Your task to perform on an android device: toggle sleep mode Image 0: 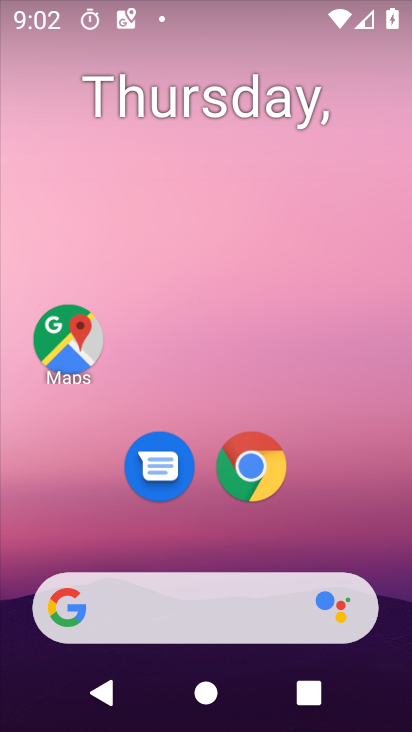
Step 0: drag from (373, 555) to (295, 146)
Your task to perform on an android device: toggle sleep mode Image 1: 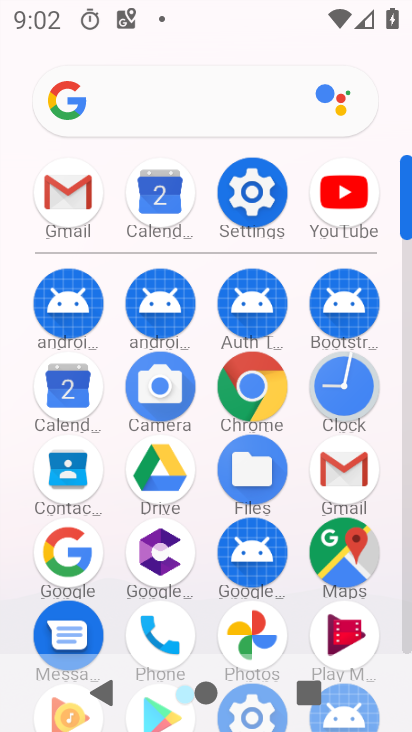
Step 1: click (243, 203)
Your task to perform on an android device: toggle sleep mode Image 2: 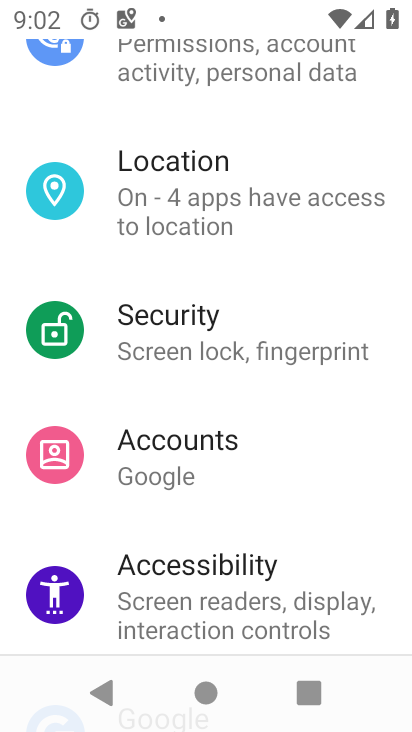
Step 2: drag from (322, 604) to (281, 716)
Your task to perform on an android device: toggle sleep mode Image 3: 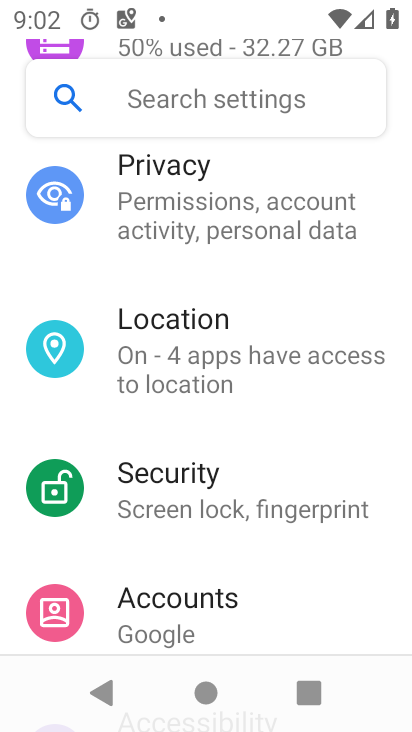
Step 3: drag from (297, 285) to (238, 723)
Your task to perform on an android device: toggle sleep mode Image 4: 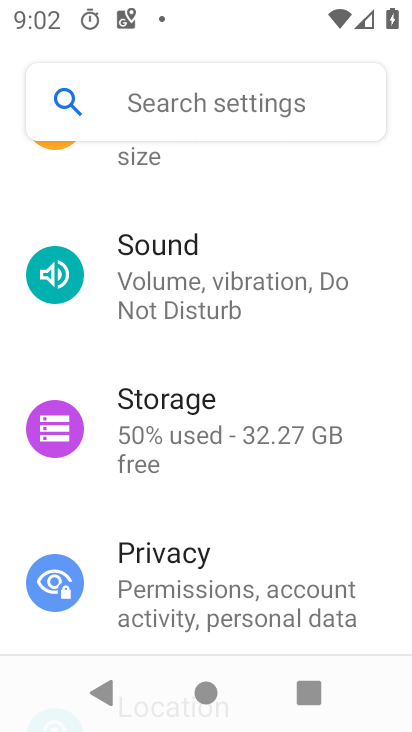
Step 4: click (173, 151)
Your task to perform on an android device: toggle sleep mode Image 5: 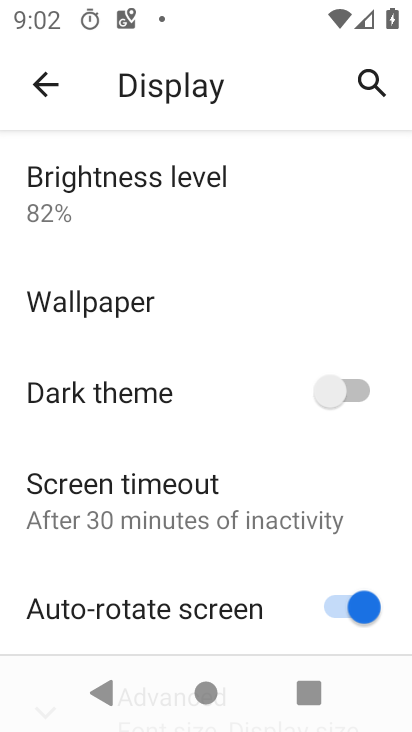
Step 5: drag from (179, 588) to (141, 145)
Your task to perform on an android device: toggle sleep mode Image 6: 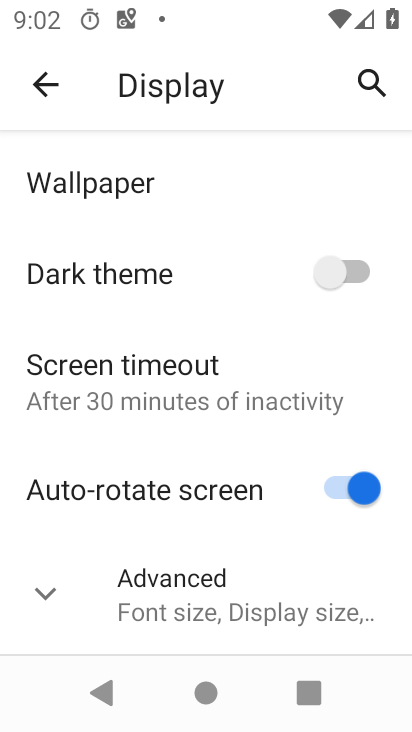
Step 6: click (47, 590)
Your task to perform on an android device: toggle sleep mode Image 7: 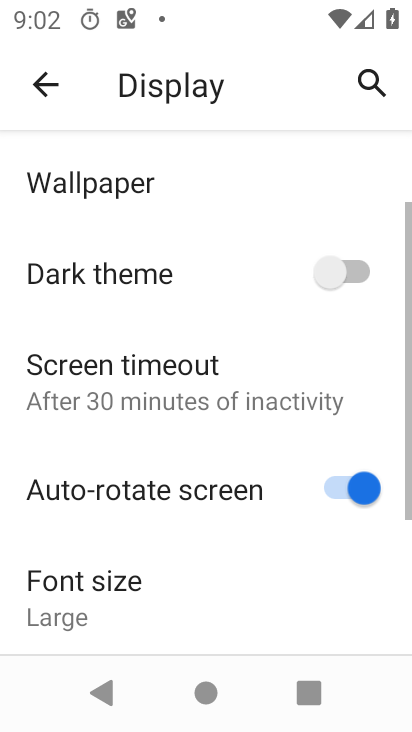
Step 7: task complete